Your task to perform on an android device: Go to wifi settings Image 0: 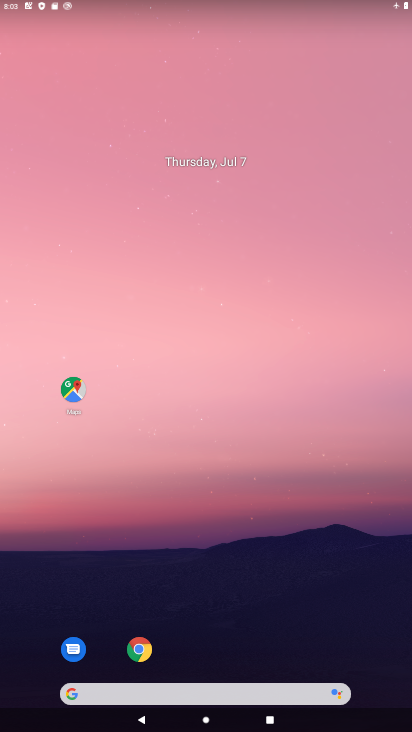
Step 0: drag from (248, 715) to (194, 297)
Your task to perform on an android device: Go to wifi settings Image 1: 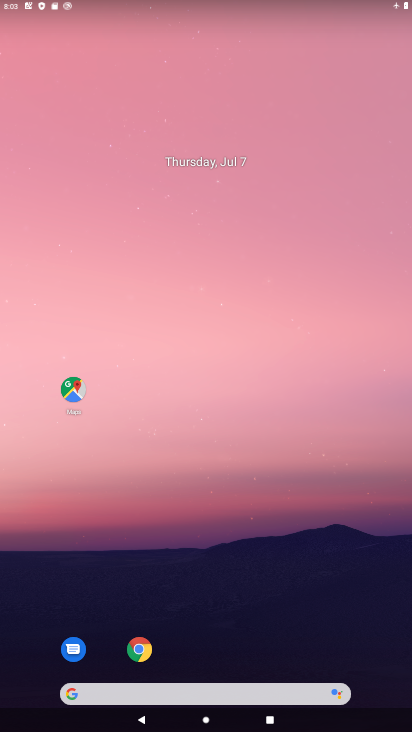
Step 1: drag from (242, 716) to (196, 76)
Your task to perform on an android device: Go to wifi settings Image 2: 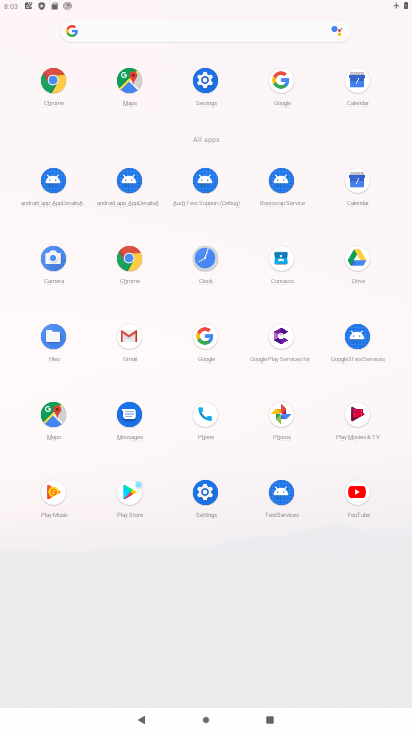
Step 2: click (208, 497)
Your task to perform on an android device: Go to wifi settings Image 3: 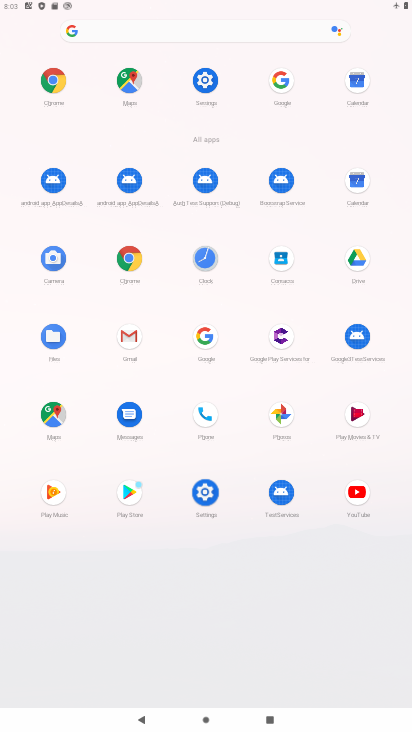
Step 3: click (209, 498)
Your task to perform on an android device: Go to wifi settings Image 4: 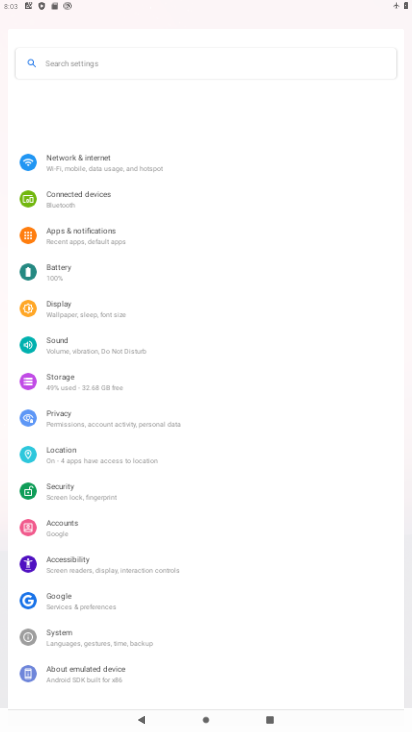
Step 4: click (211, 491)
Your task to perform on an android device: Go to wifi settings Image 5: 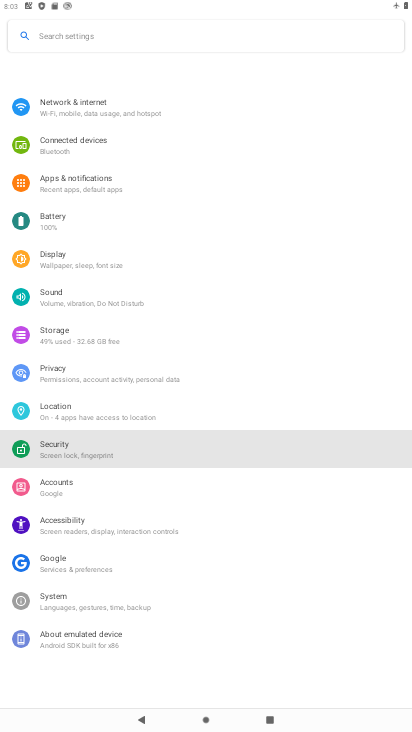
Step 5: click (211, 491)
Your task to perform on an android device: Go to wifi settings Image 6: 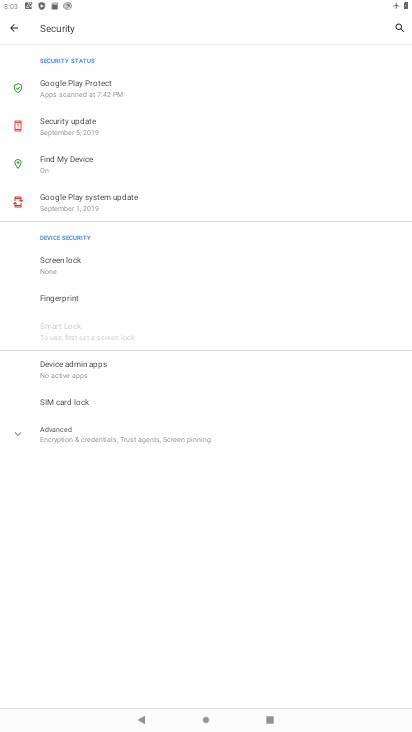
Step 6: click (13, 26)
Your task to perform on an android device: Go to wifi settings Image 7: 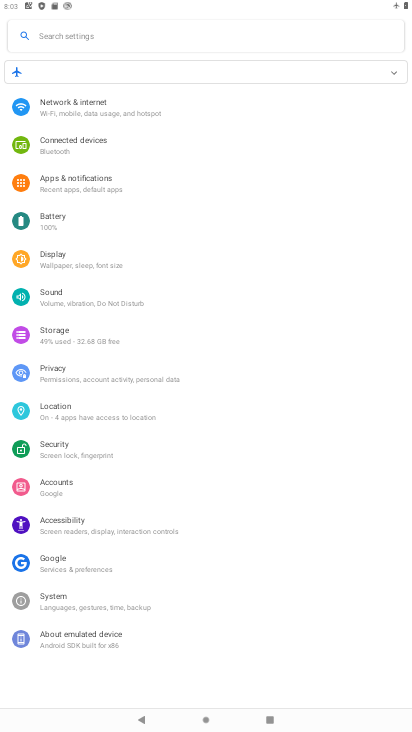
Step 7: click (51, 115)
Your task to perform on an android device: Go to wifi settings Image 8: 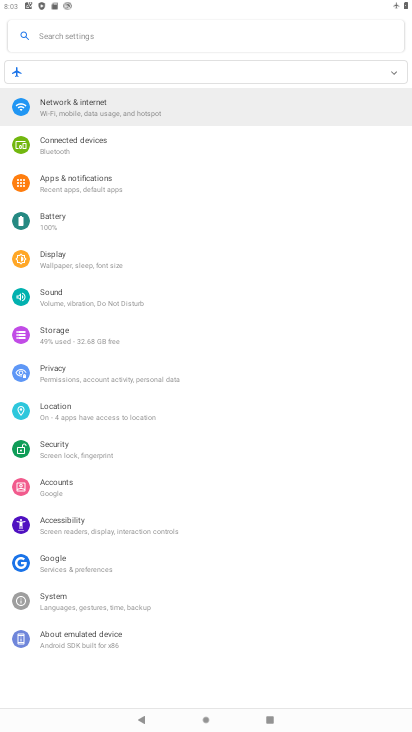
Step 8: click (51, 115)
Your task to perform on an android device: Go to wifi settings Image 9: 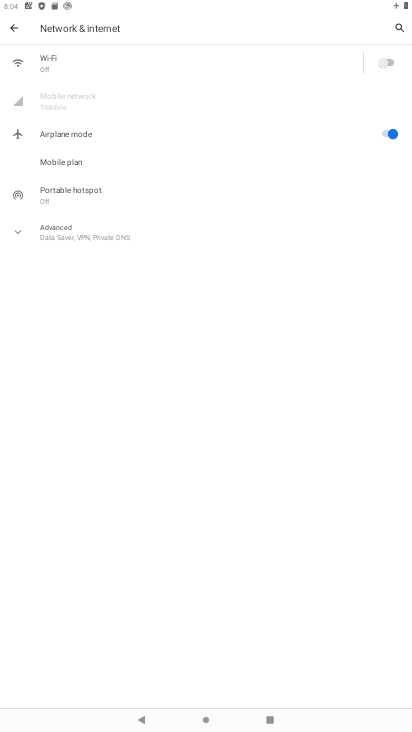
Step 9: click (41, 56)
Your task to perform on an android device: Go to wifi settings Image 10: 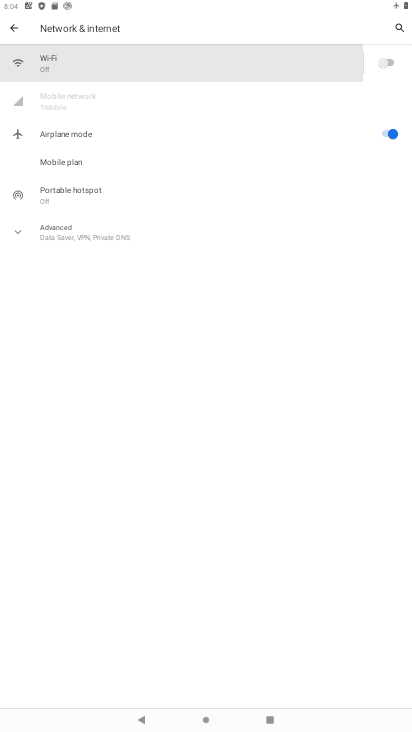
Step 10: click (42, 55)
Your task to perform on an android device: Go to wifi settings Image 11: 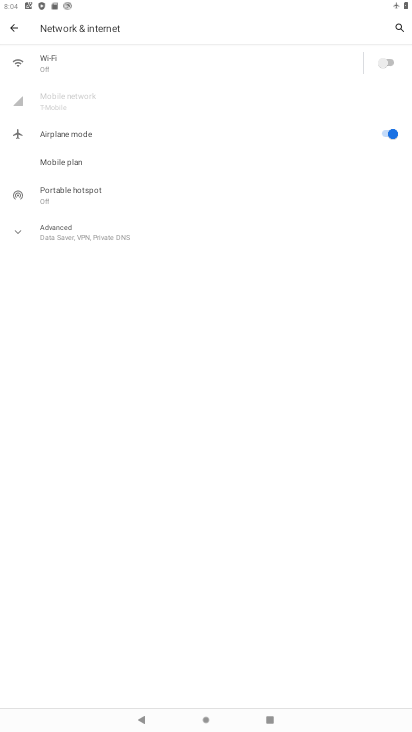
Step 11: click (42, 55)
Your task to perform on an android device: Go to wifi settings Image 12: 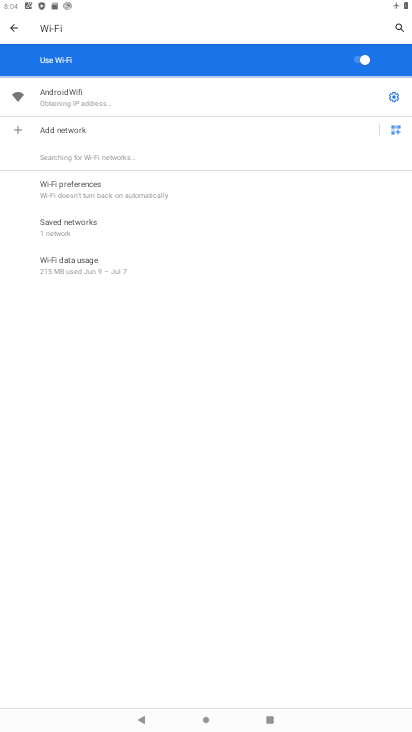
Step 12: click (364, 59)
Your task to perform on an android device: Go to wifi settings Image 13: 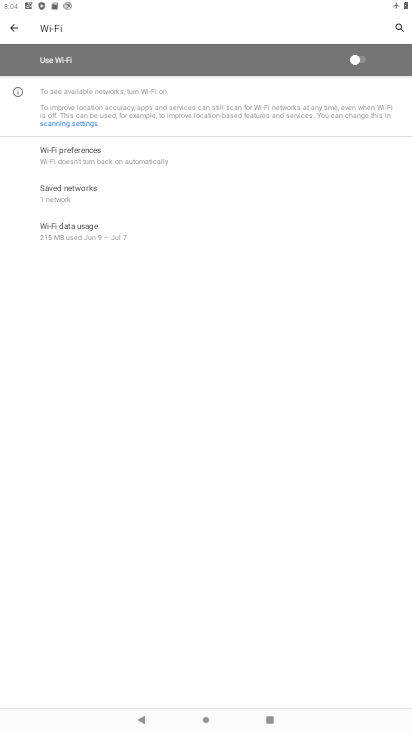
Step 13: task complete